Your task to perform on an android device: Show me productivity apps on the Play Store Image 0: 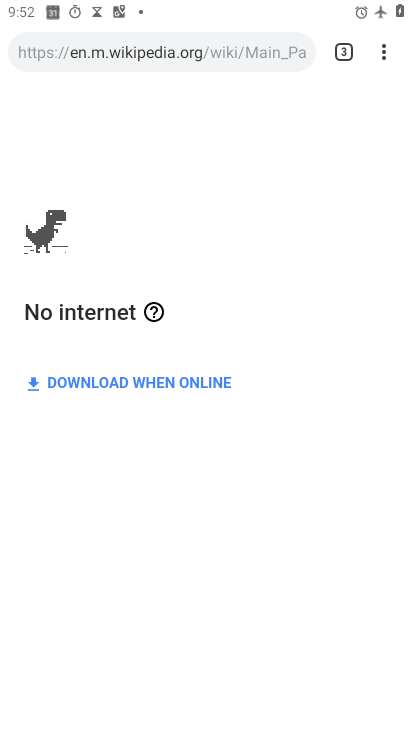
Step 0: press home button
Your task to perform on an android device: Show me productivity apps on the Play Store Image 1: 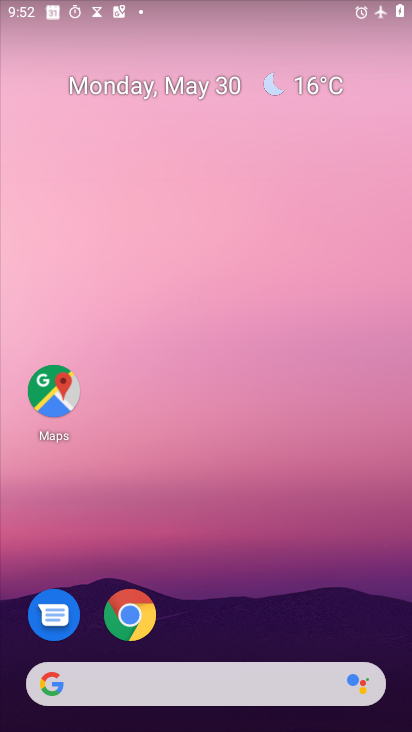
Step 1: drag from (270, 577) to (256, 2)
Your task to perform on an android device: Show me productivity apps on the Play Store Image 2: 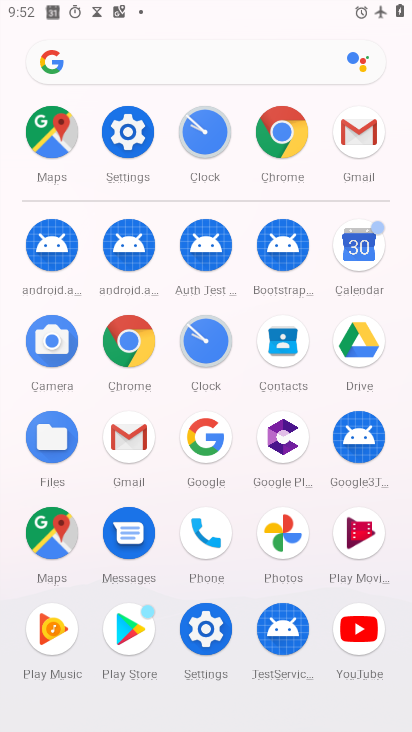
Step 2: click (126, 624)
Your task to perform on an android device: Show me productivity apps on the Play Store Image 3: 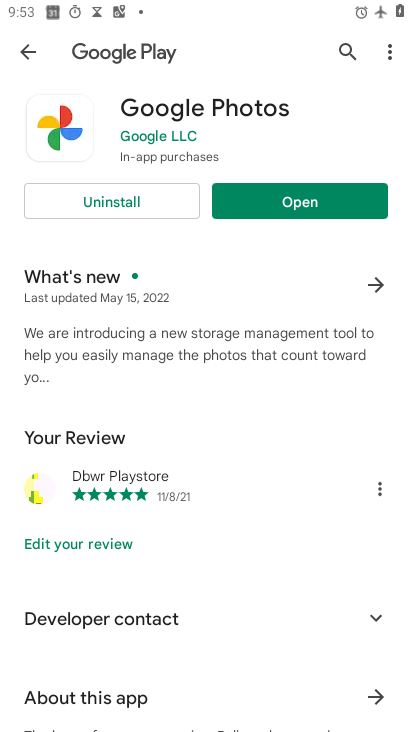
Step 3: click (321, 217)
Your task to perform on an android device: Show me productivity apps on the Play Store Image 4: 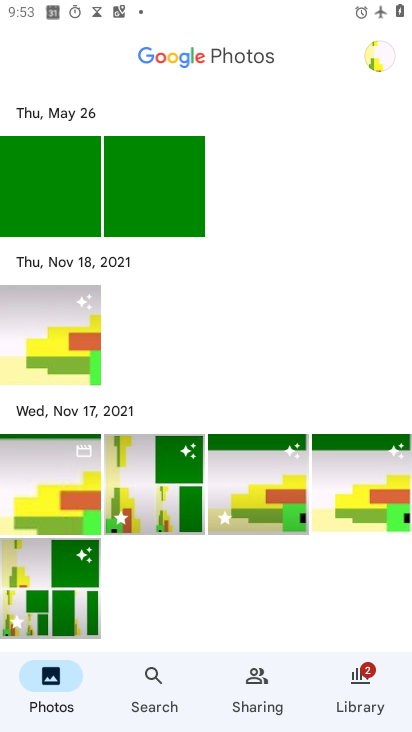
Step 4: drag from (244, 596) to (235, 223)
Your task to perform on an android device: Show me productivity apps on the Play Store Image 5: 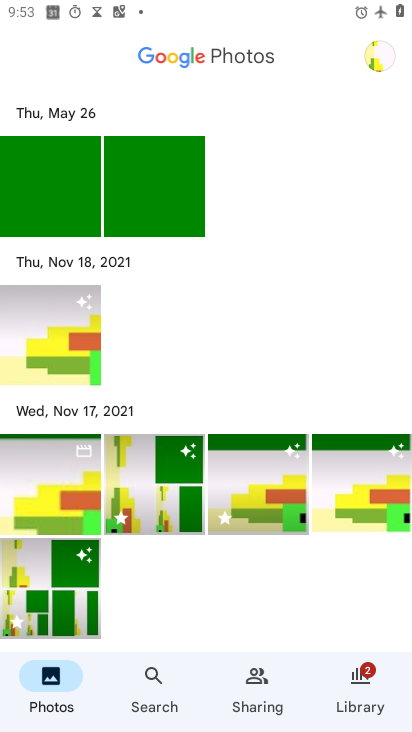
Step 5: drag from (320, 227) to (308, 695)
Your task to perform on an android device: Show me productivity apps on the Play Store Image 6: 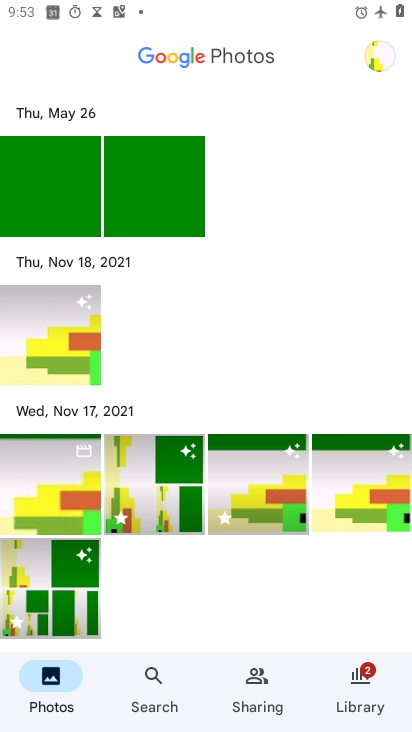
Step 6: press home button
Your task to perform on an android device: Show me productivity apps on the Play Store Image 7: 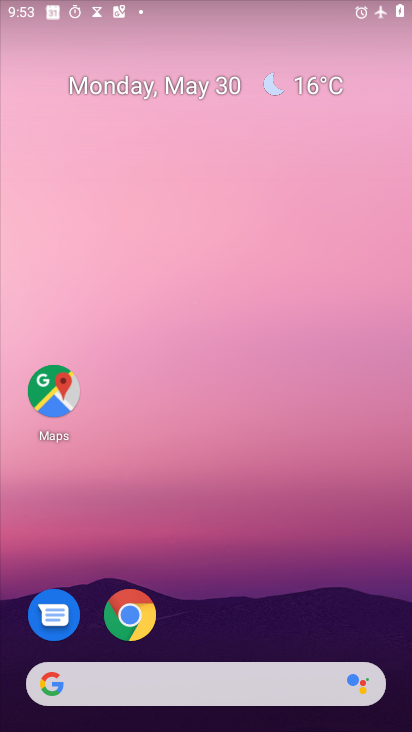
Step 7: drag from (287, 594) to (235, 41)
Your task to perform on an android device: Show me productivity apps on the Play Store Image 8: 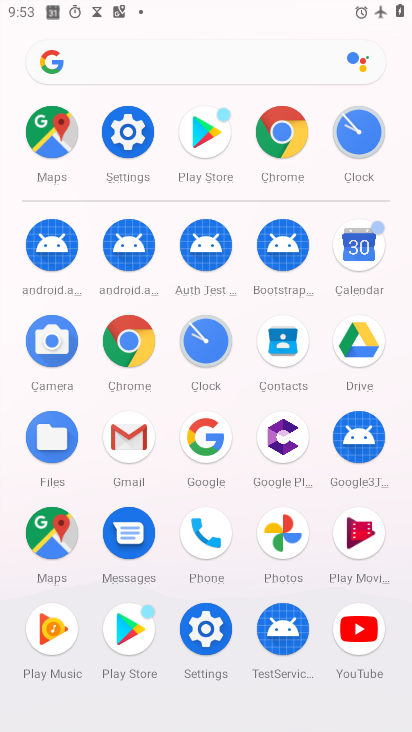
Step 8: click (205, 138)
Your task to perform on an android device: Show me productivity apps on the Play Store Image 9: 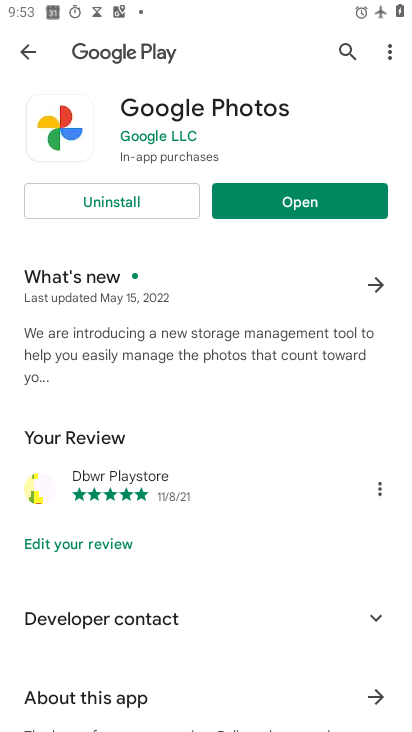
Step 9: click (31, 69)
Your task to perform on an android device: Show me productivity apps on the Play Store Image 10: 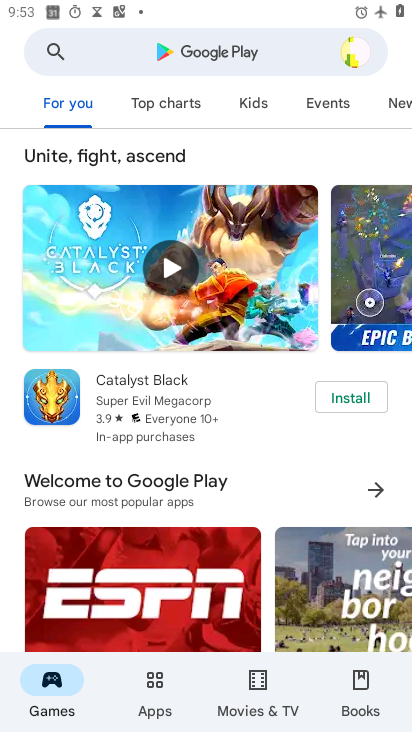
Step 10: click (193, 56)
Your task to perform on an android device: Show me productivity apps on the Play Store Image 11: 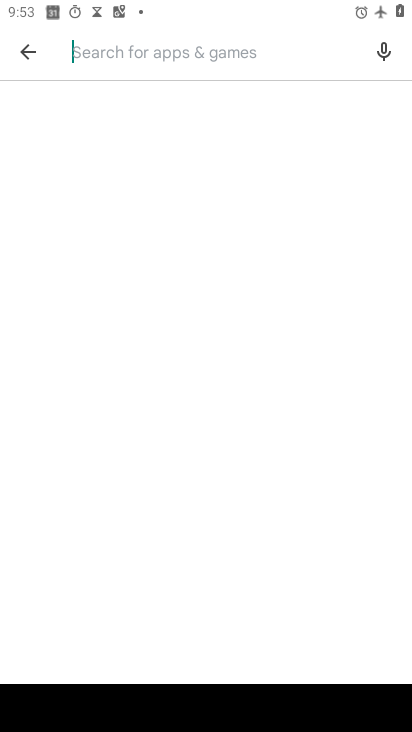
Step 11: type "productivity apss"
Your task to perform on an android device: Show me productivity apps on the Play Store Image 12: 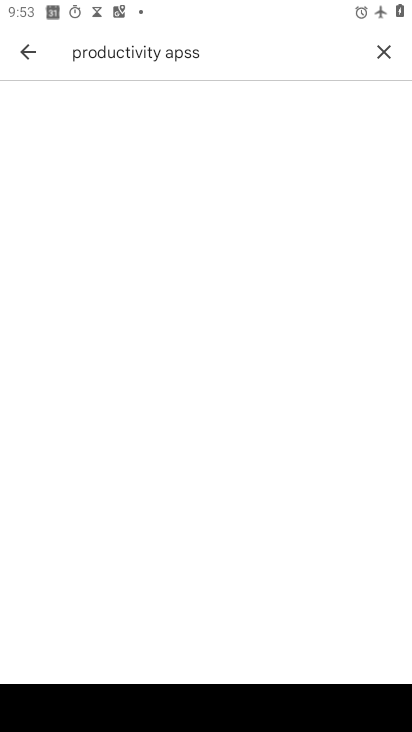
Step 12: press enter
Your task to perform on an android device: Show me productivity apps on the Play Store Image 13: 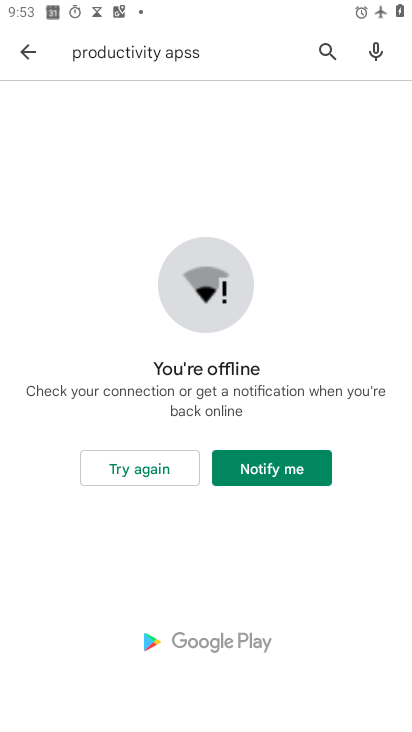
Step 13: click (110, 492)
Your task to perform on an android device: Show me productivity apps on the Play Store Image 14: 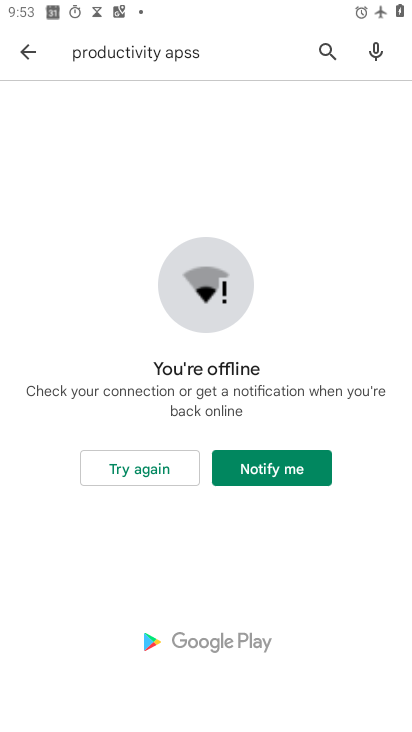
Step 14: click (109, 480)
Your task to perform on an android device: Show me productivity apps on the Play Store Image 15: 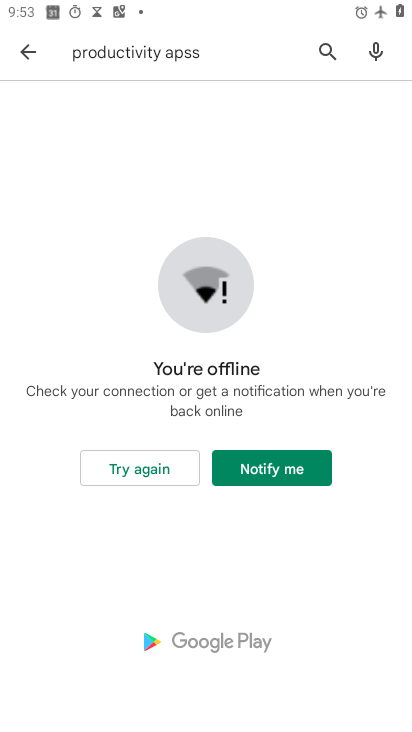
Step 15: task complete